Your task to perform on an android device: find photos in the google photos app Image 0: 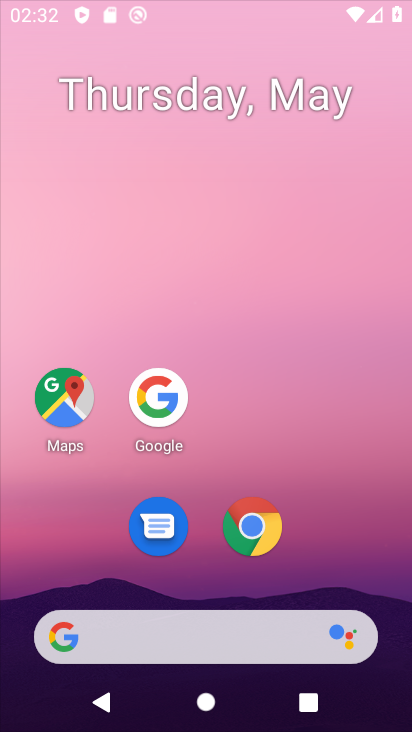
Step 0: click (273, 99)
Your task to perform on an android device: find photos in the google photos app Image 1: 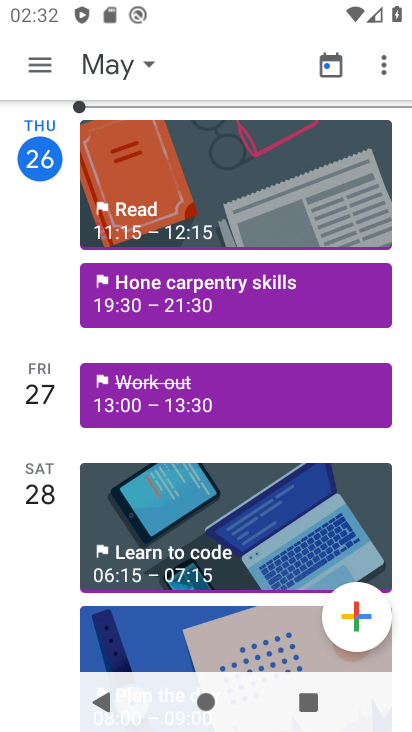
Step 1: drag from (217, 601) to (250, 270)
Your task to perform on an android device: find photos in the google photos app Image 2: 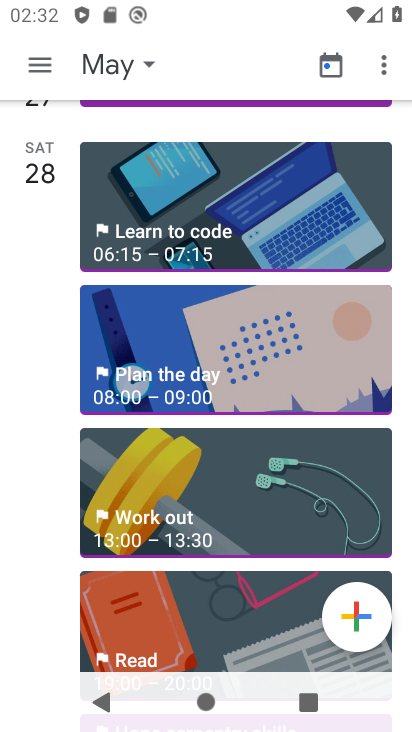
Step 2: drag from (208, 648) to (236, 201)
Your task to perform on an android device: find photos in the google photos app Image 3: 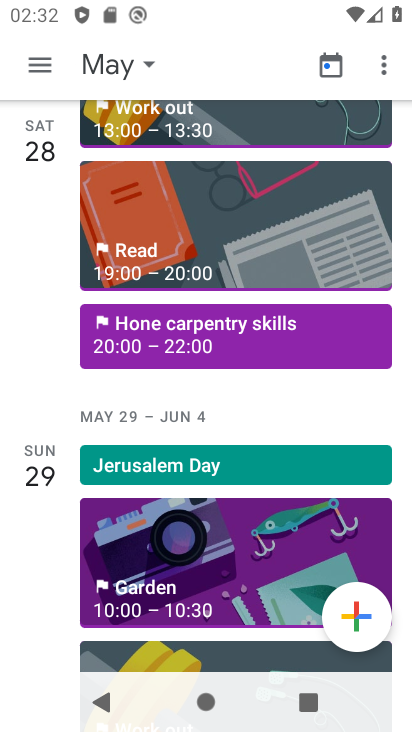
Step 3: drag from (227, 150) to (222, 529)
Your task to perform on an android device: find photos in the google photos app Image 4: 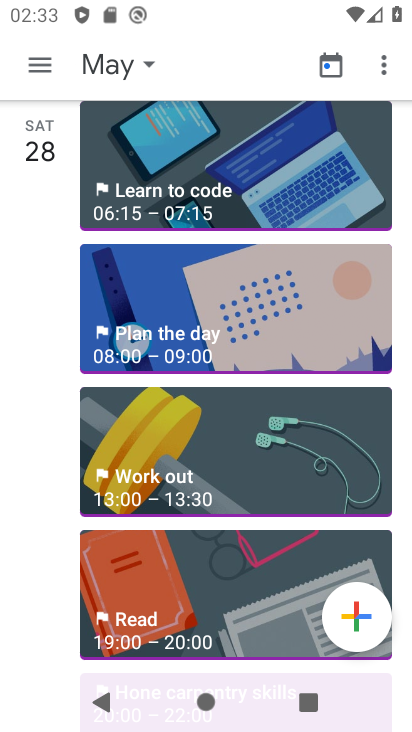
Step 4: press home button
Your task to perform on an android device: find photos in the google photos app Image 5: 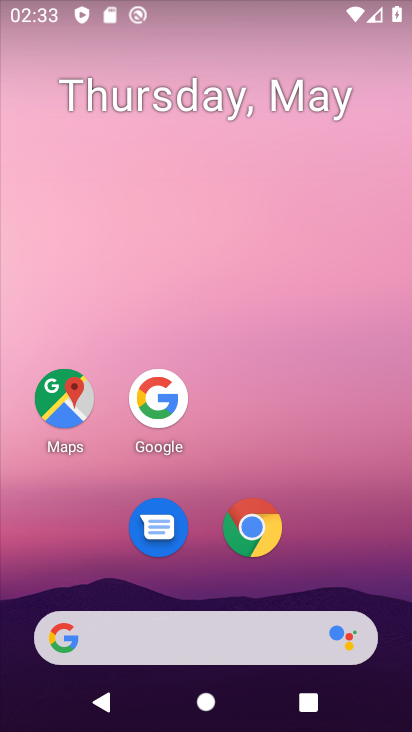
Step 5: drag from (184, 605) to (278, 99)
Your task to perform on an android device: find photos in the google photos app Image 6: 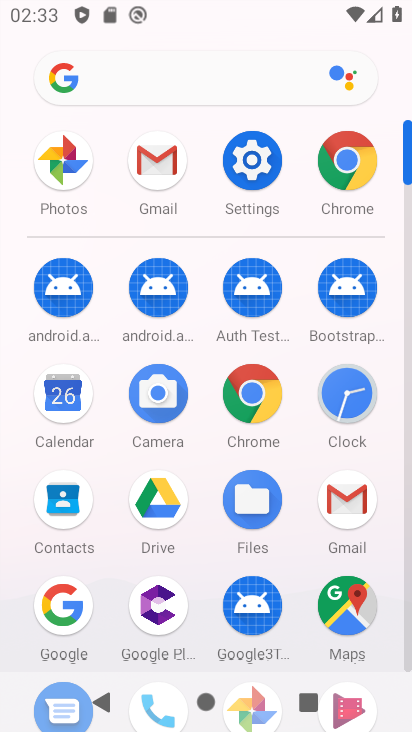
Step 6: drag from (202, 683) to (191, 254)
Your task to perform on an android device: find photos in the google photos app Image 7: 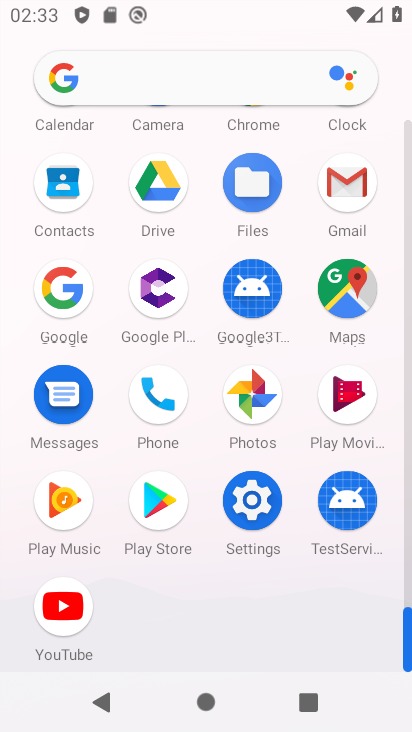
Step 7: click (244, 391)
Your task to perform on an android device: find photos in the google photos app Image 8: 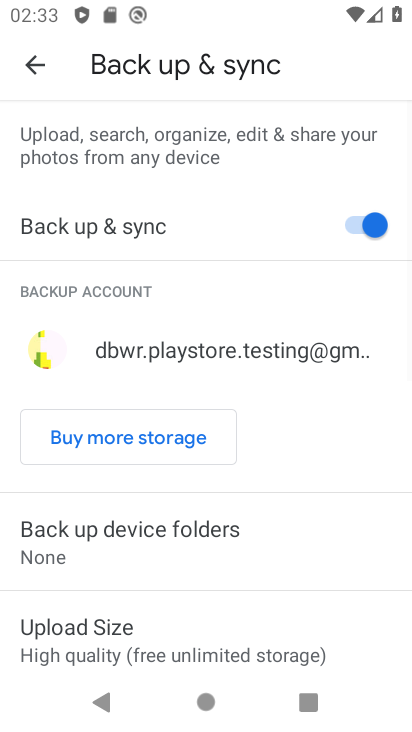
Step 8: drag from (209, 569) to (268, 42)
Your task to perform on an android device: find photos in the google photos app Image 9: 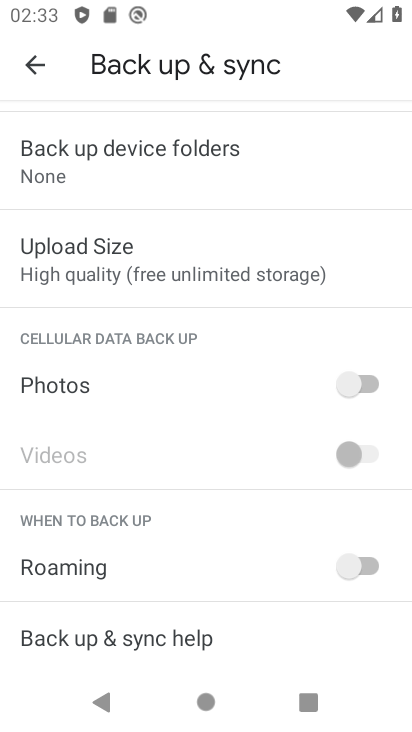
Step 9: click (40, 58)
Your task to perform on an android device: find photos in the google photos app Image 10: 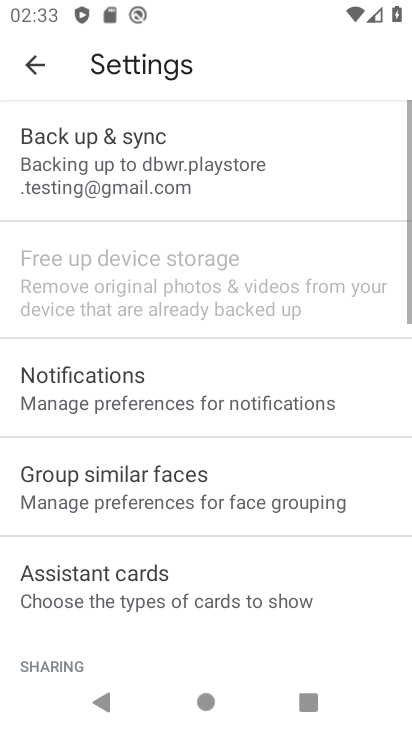
Step 10: click (36, 59)
Your task to perform on an android device: find photos in the google photos app Image 11: 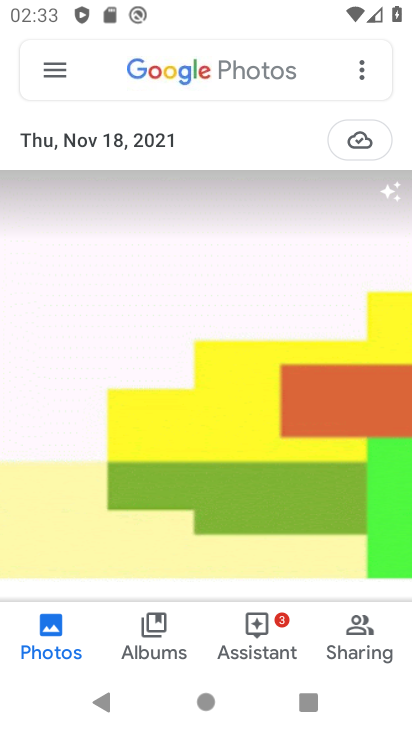
Step 11: click (169, 618)
Your task to perform on an android device: find photos in the google photos app Image 12: 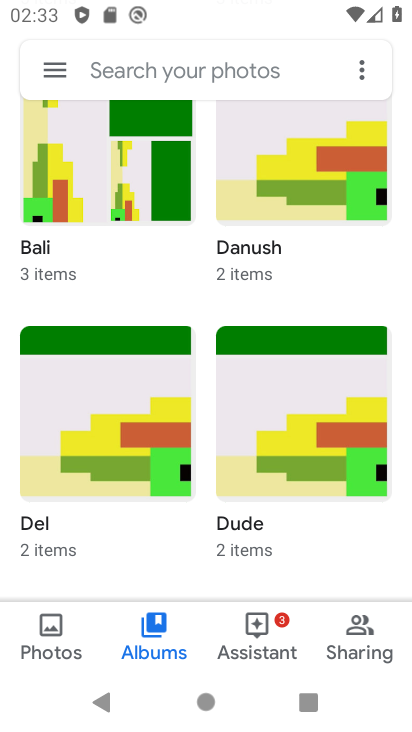
Step 12: drag from (162, 220) to (219, 729)
Your task to perform on an android device: find photos in the google photos app Image 13: 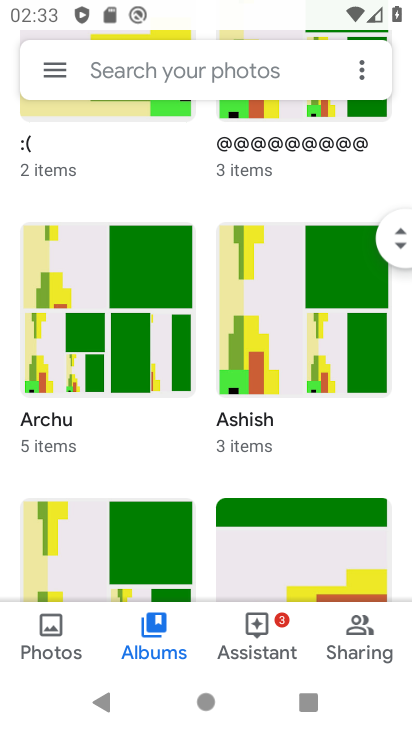
Step 13: click (136, 297)
Your task to perform on an android device: find photos in the google photos app Image 14: 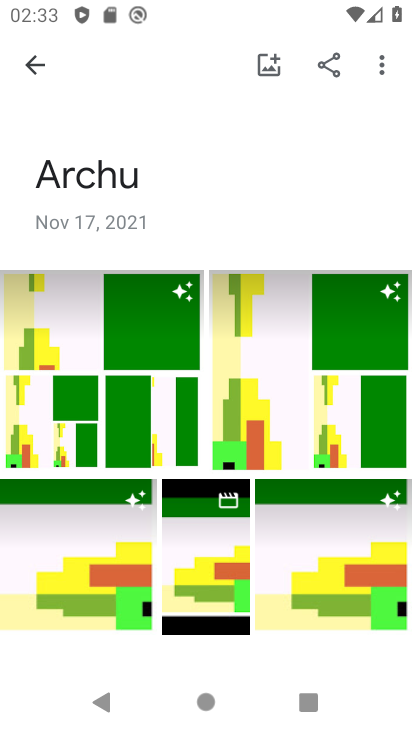
Step 14: drag from (375, 429) to (0, 417)
Your task to perform on an android device: find photos in the google photos app Image 15: 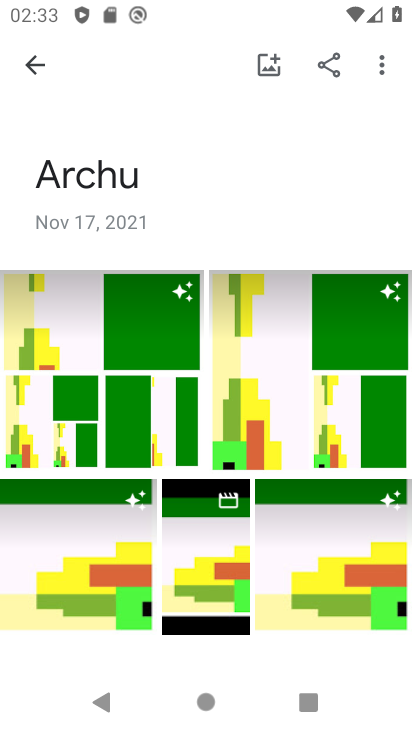
Step 15: click (79, 387)
Your task to perform on an android device: find photos in the google photos app Image 16: 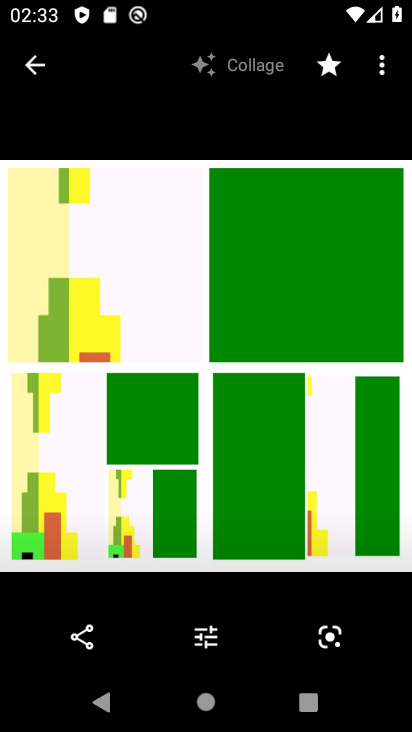
Step 16: task complete